Your task to perform on an android device: find snoozed emails in the gmail app Image 0: 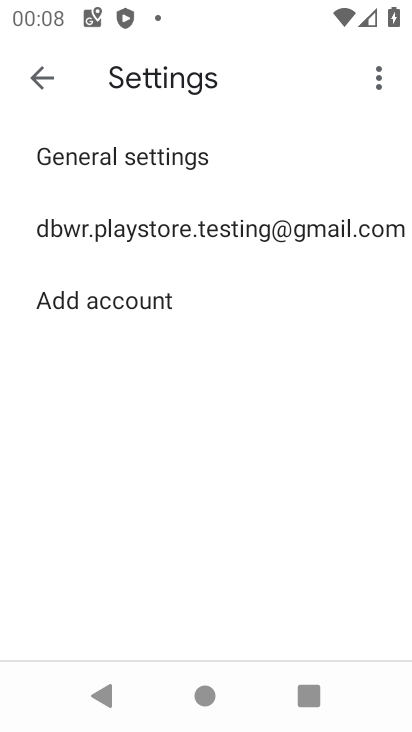
Step 0: press home button
Your task to perform on an android device: find snoozed emails in the gmail app Image 1: 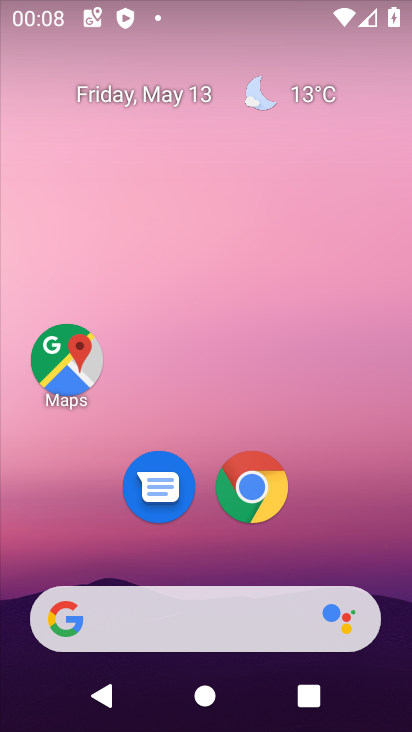
Step 1: drag from (165, 565) to (261, 8)
Your task to perform on an android device: find snoozed emails in the gmail app Image 2: 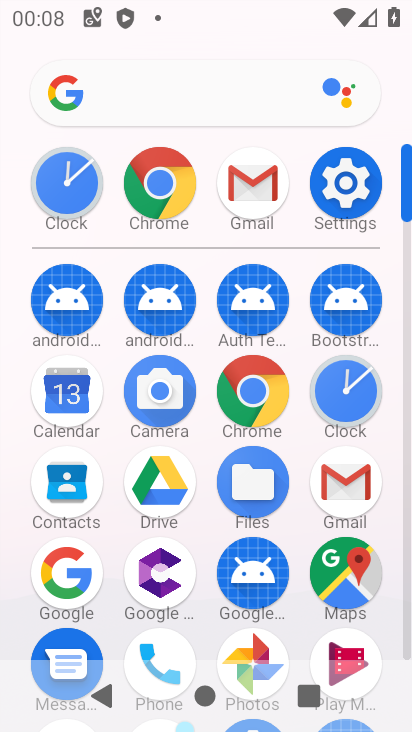
Step 2: click (370, 475)
Your task to perform on an android device: find snoozed emails in the gmail app Image 3: 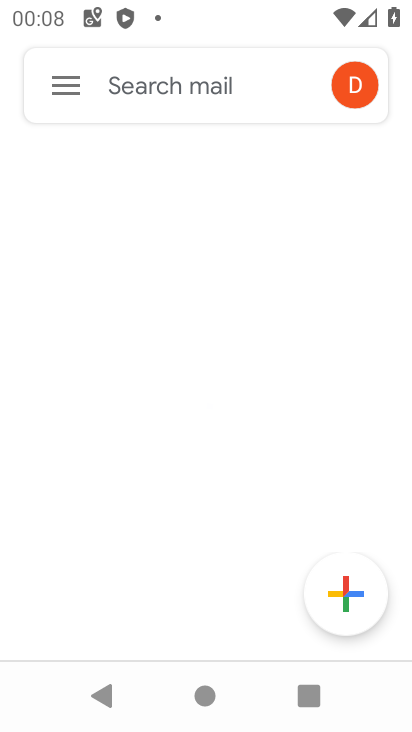
Step 3: click (76, 109)
Your task to perform on an android device: find snoozed emails in the gmail app Image 4: 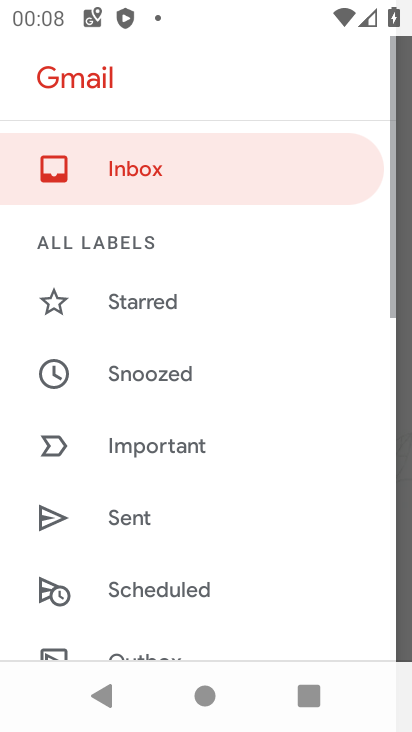
Step 4: click (160, 396)
Your task to perform on an android device: find snoozed emails in the gmail app Image 5: 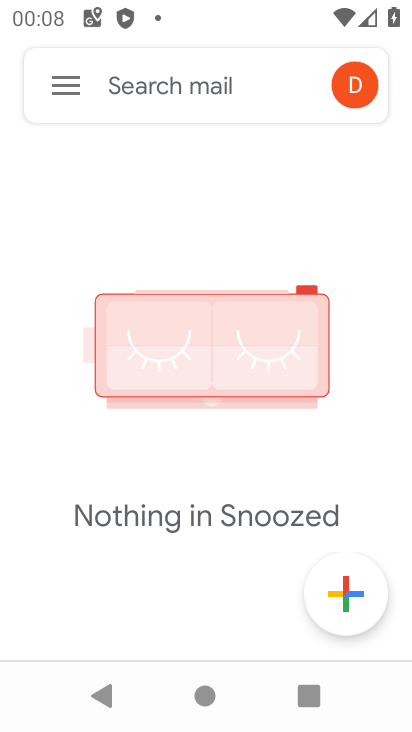
Step 5: task complete